Your task to perform on an android device: turn off sleep mode Image 0: 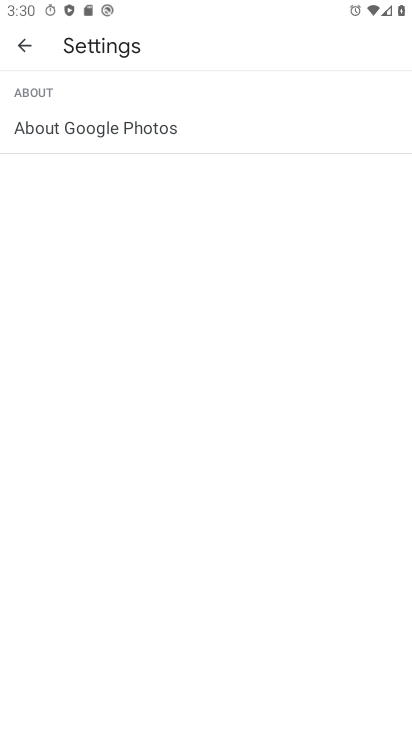
Step 0: press home button
Your task to perform on an android device: turn off sleep mode Image 1: 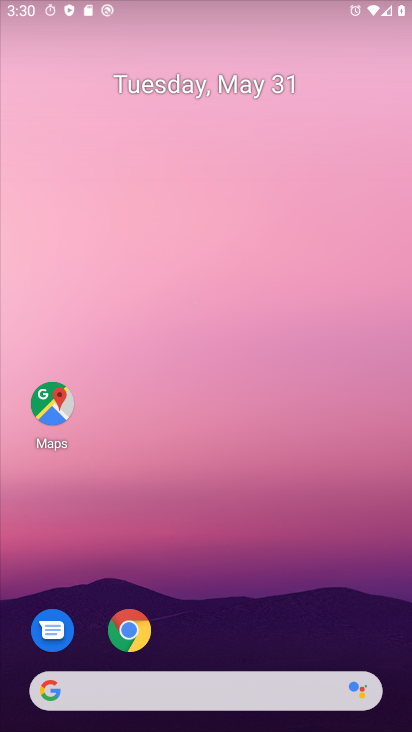
Step 1: drag from (324, 638) to (268, 64)
Your task to perform on an android device: turn off sleep mode Image 2: 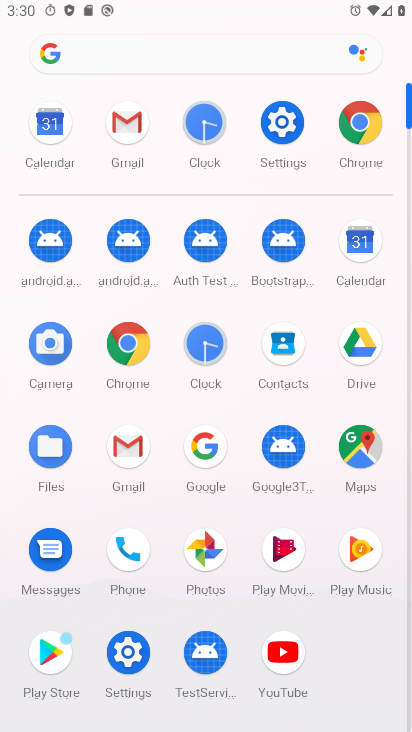
Step 2: click (288, 142)
Your task to perform on an android device: turn off sleep mode Image 3: 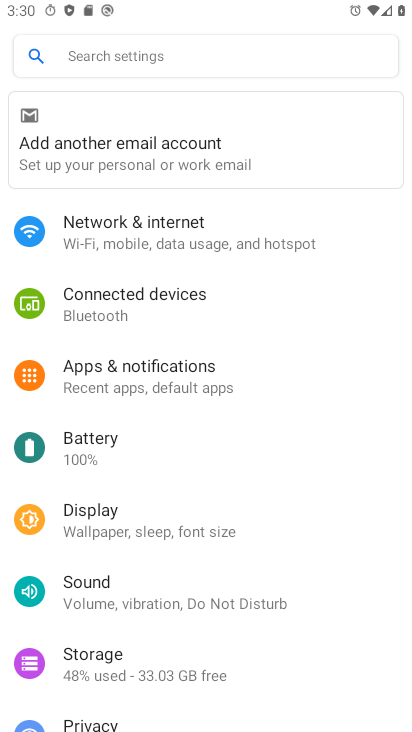
Step 3: click (183, 526)
Your task to perform on an android device: turn off sleep mode Image 4: 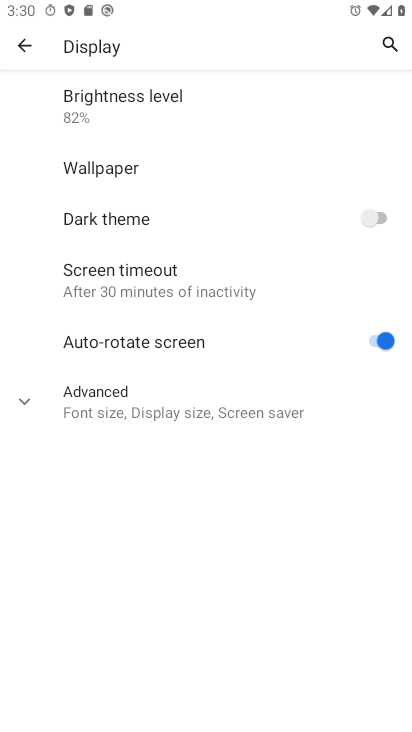
Step 4: task complete